Your task to perform on an android device: check storage Image 0: 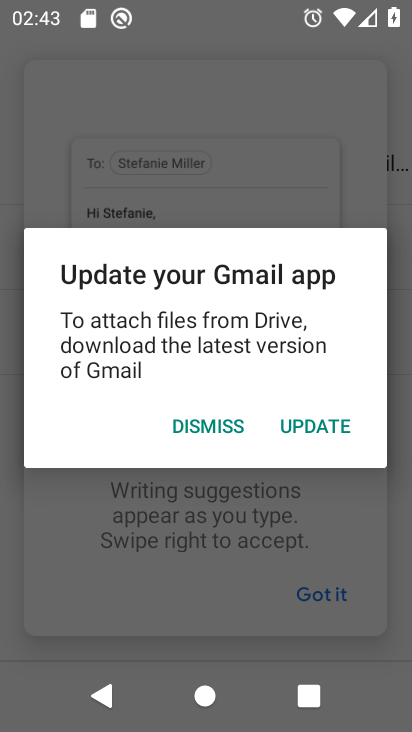
Step 0: click (192, 423)
Your task to perform on an android device: check storage Image 1: 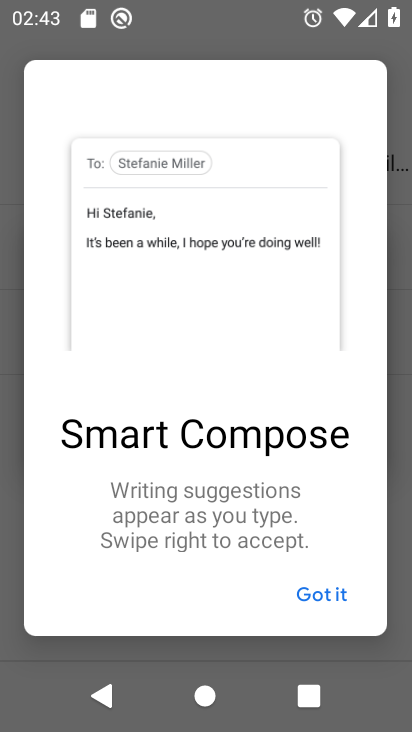
Step 1: press home button
Your task to perform on an android device: check storage Image 2: 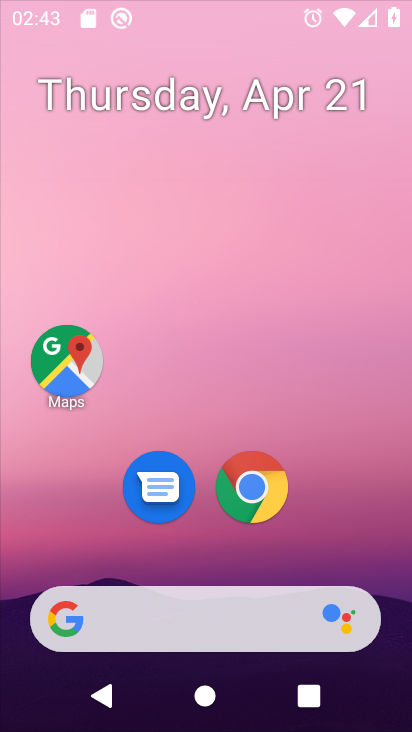
Step 2: drag from (201, 591) to (298, 123)
Your task to perform on an android device: check storage Image 3: 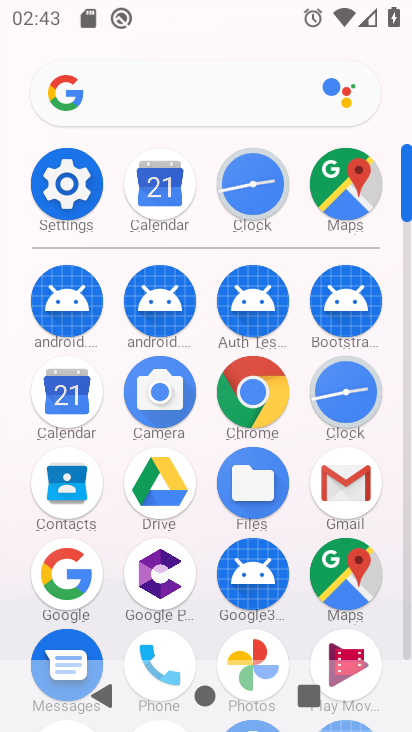
Step 3: click (75, 183)
Your task to perform on an android device: check storage Image 4: 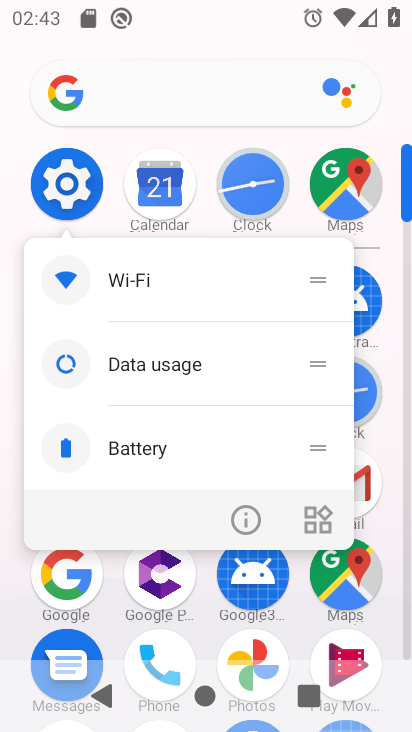
Step 4: click (246, 531)
Your task to perform on an android device: check storage Image 5: 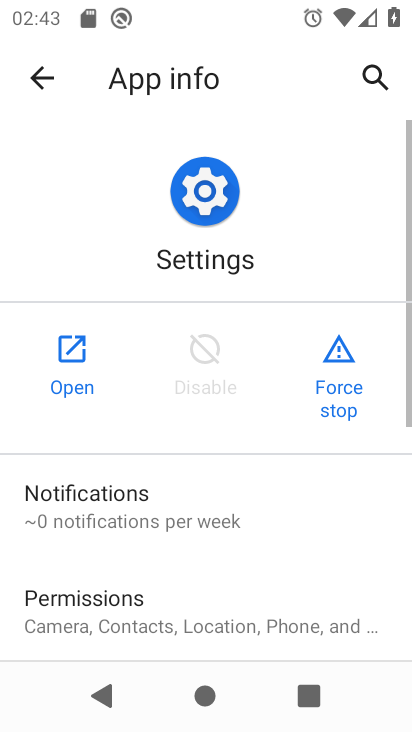
Step 5: click (75, 360)
Your task to perform on an android device: check storage Image 6: 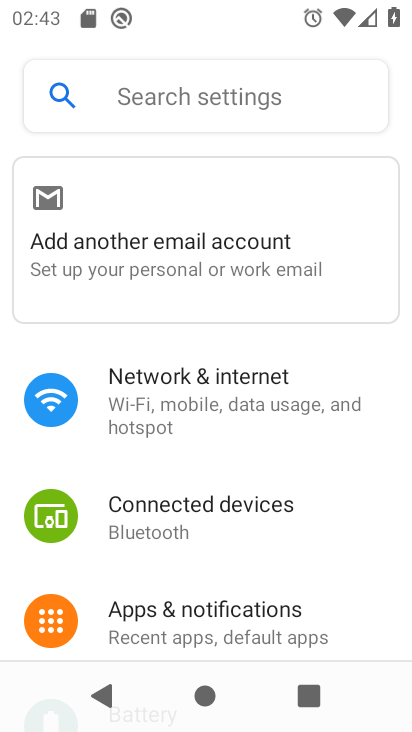
Step 6: drag from (193, 624) to (309, 115)
Your task to perform on an android device: check storage Image 7: 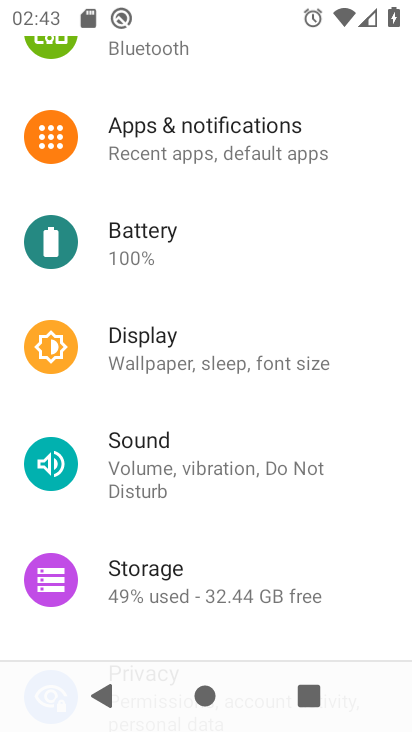
Step 7: click (174, 573)
Your task to perform on an android device: check storage Image 8: 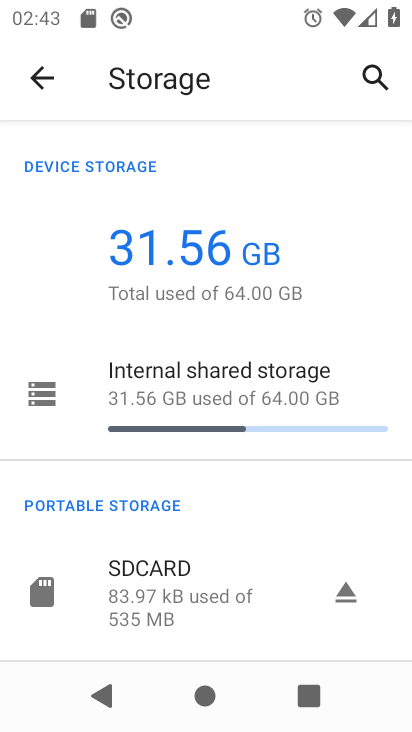
Step 8: drag from (196, 474) to (291, 94)
Your task to perform on an android device: check storage Image 9: 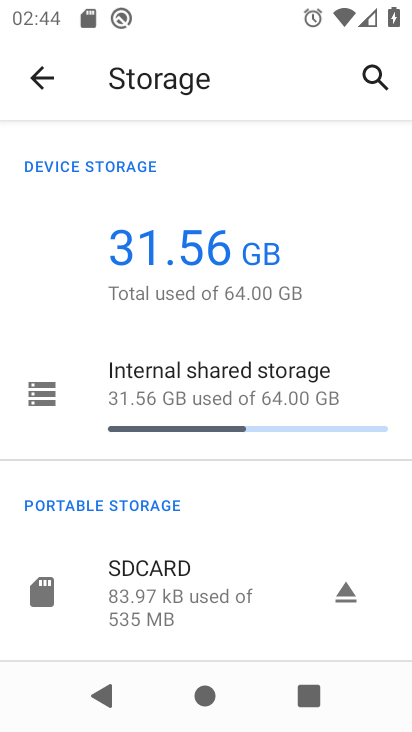
Step 9: click (270, 288)
Your task to perform on an android device: check storage Image 10: 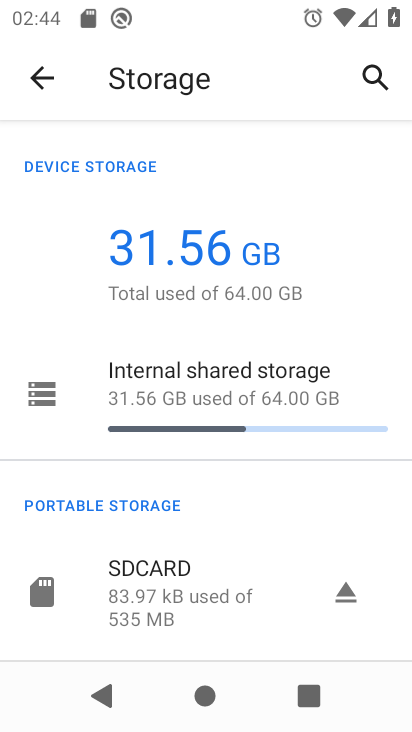
Step 10: task complete